Your task to perform on an android device: remove spam from my inbox in the gmail app Image 0: 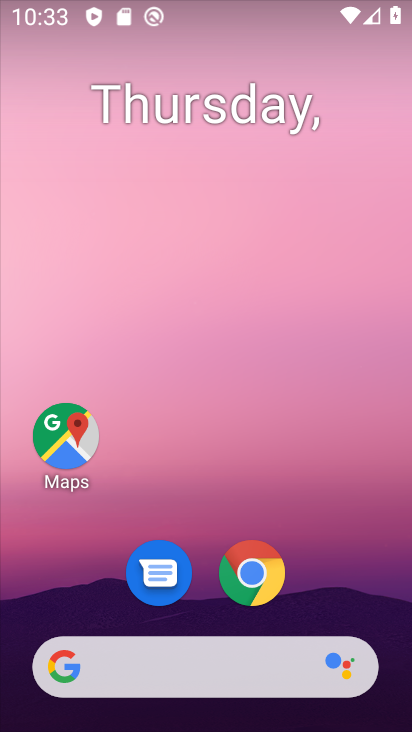
Step 0: drag from (341, 357) to (349, 58)
Your task to perform on an android device: remove spam from my inbox in the gmail app Image 1: 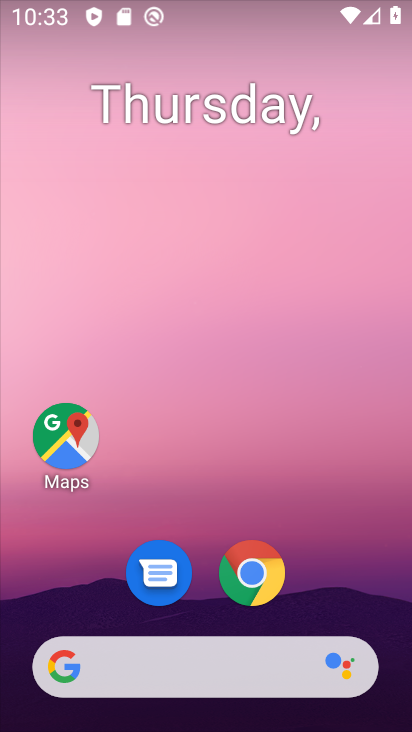
Step 1: drag from (341, 445) to (277, 1)
Your task to perform on an android device: remove spam from my inbox in the gmail app Image 2: 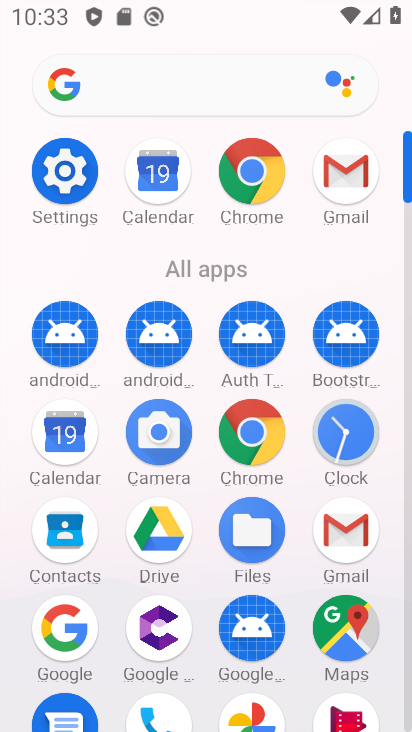
Step 2: click (356, 192)
Your task to perform on an android device: remove spam from my inbox in the gmail app Image 3: 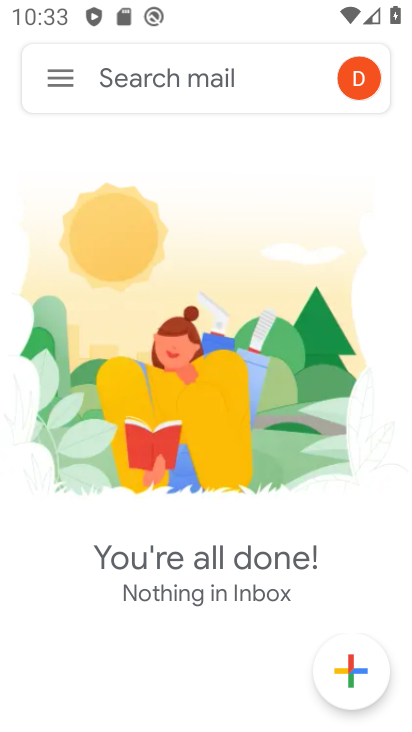
Step 3: click (62, 79)
Your task to perform on an android device: remove spam from my inbox in the gmail app Image 4: 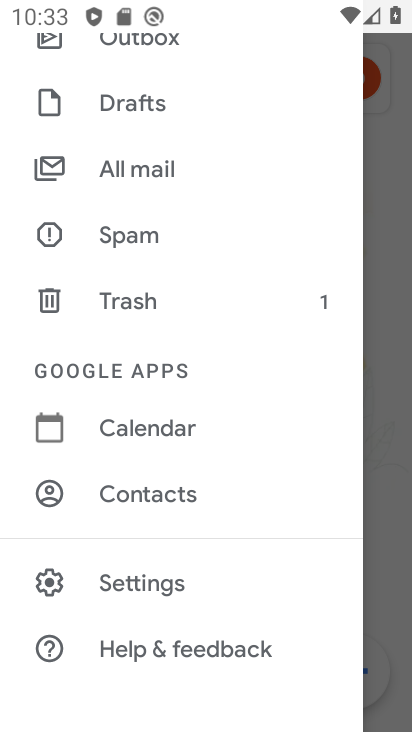
Step 4: click (155, 175)
Your task to perform on an android device: remove spam from my inbox in the gmail app Image 5: 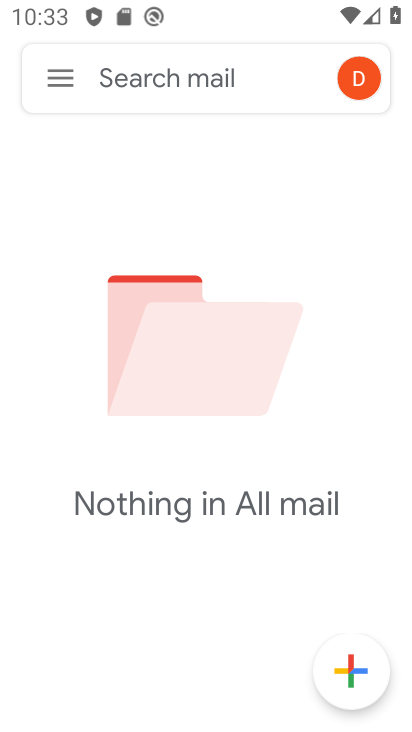
Step 5: click (49, 80)
Your task to perform on an android device: remove spam from my inbox in the gmail app Image 6: 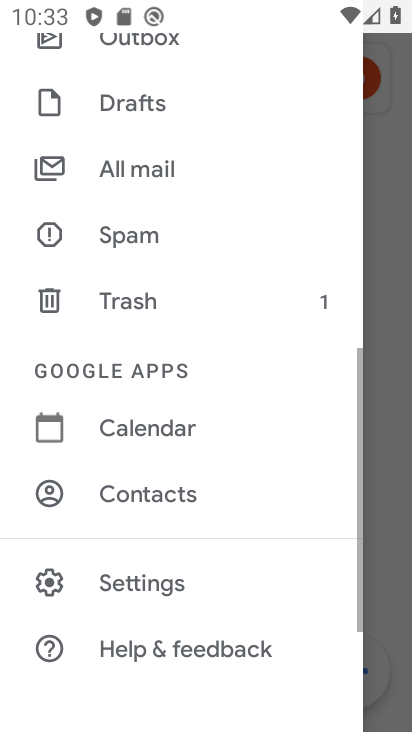
Step 6: drag from (173, 132) to (228, 712)
Your task to perform on an android device: remove spam from my inbox in the gmail app Image 7: 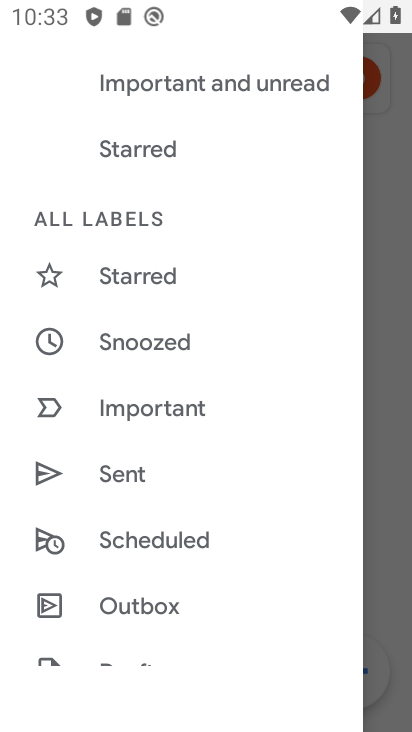
Step 7: drag from (167, 180) to (153, 569)
Your task to perform on an android device: remove spam from my inbox in the gmail app Image 8: 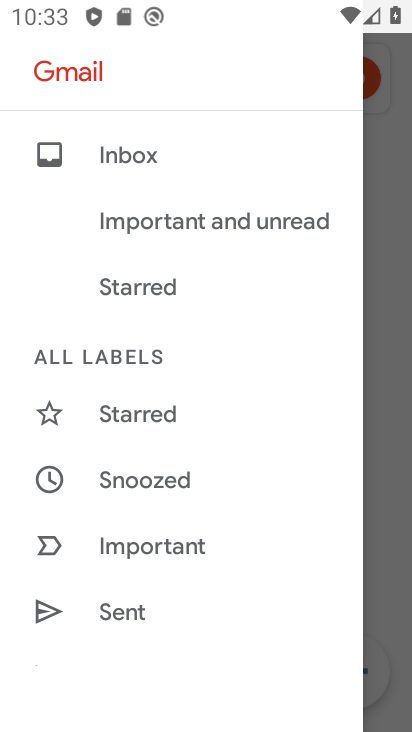
Step 8: click (156, 157)
Your task to perform on an android device: remove spam from my inbox in the gmail app Image 9: 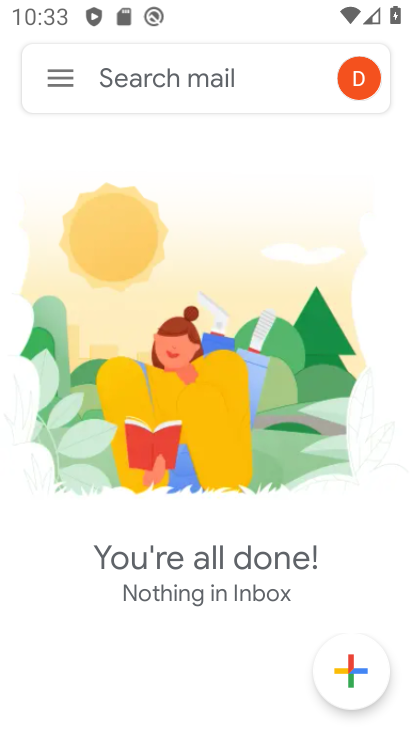
Step 9: task complete